Your task to perform on an android device: turn on airplane mode Image 0: 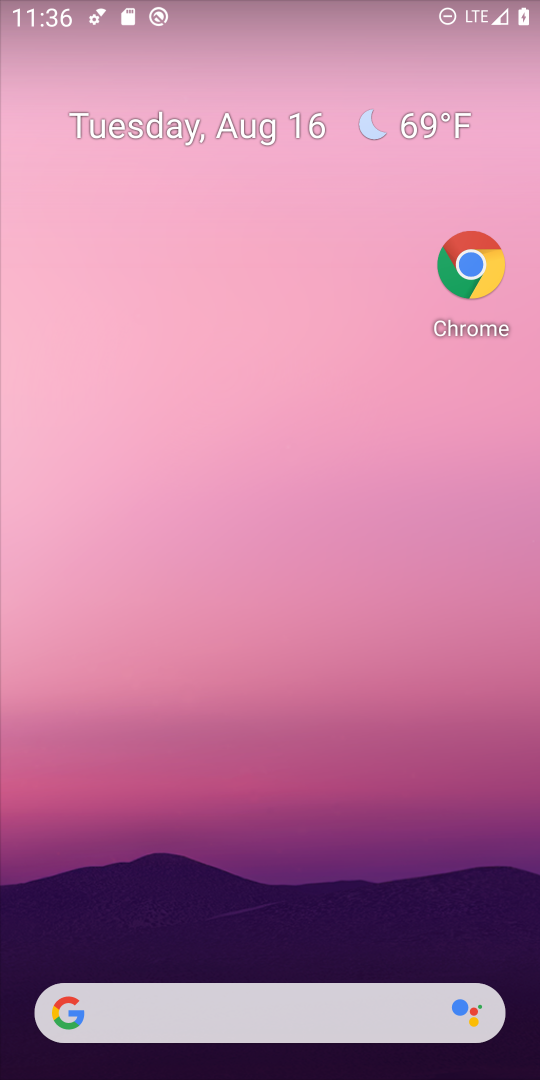
Step 0: drag from (234, 986) to (377, 109)
Your task to perform on an android device: turn on airplane mode Image 1: 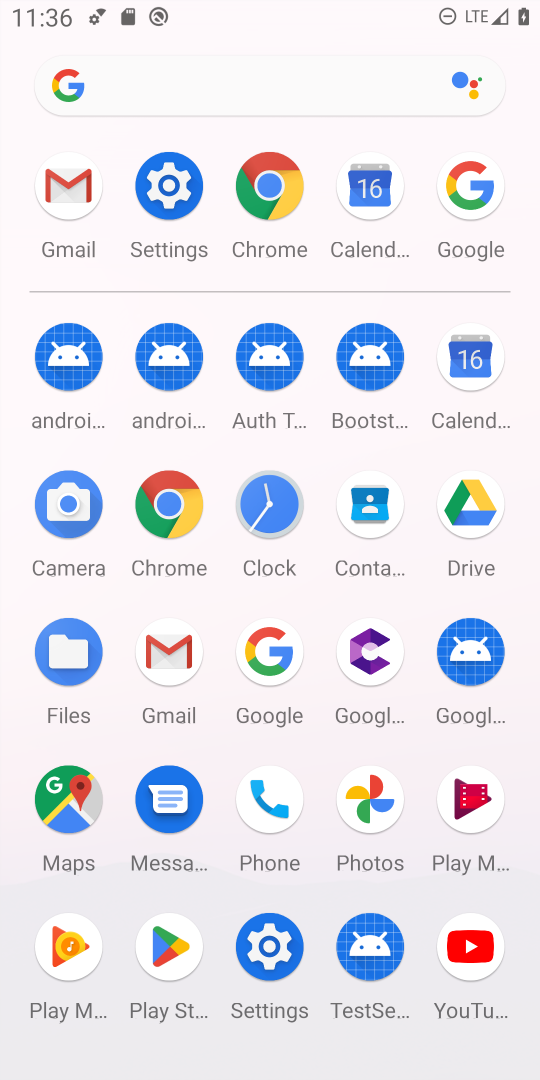
Step 1: click (188, 207)
Your task to perform on an android device: turn on airplane mode Image 2: 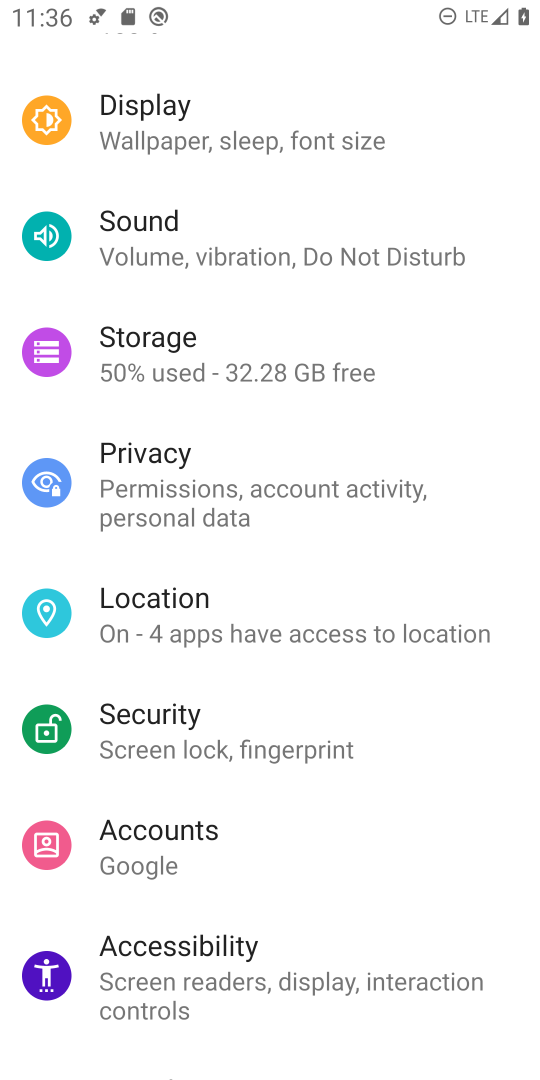
Step 2: drag from (248, 376) to (281, 1043)
Your task to perform on an android device: turn on airplane mode Image 3: 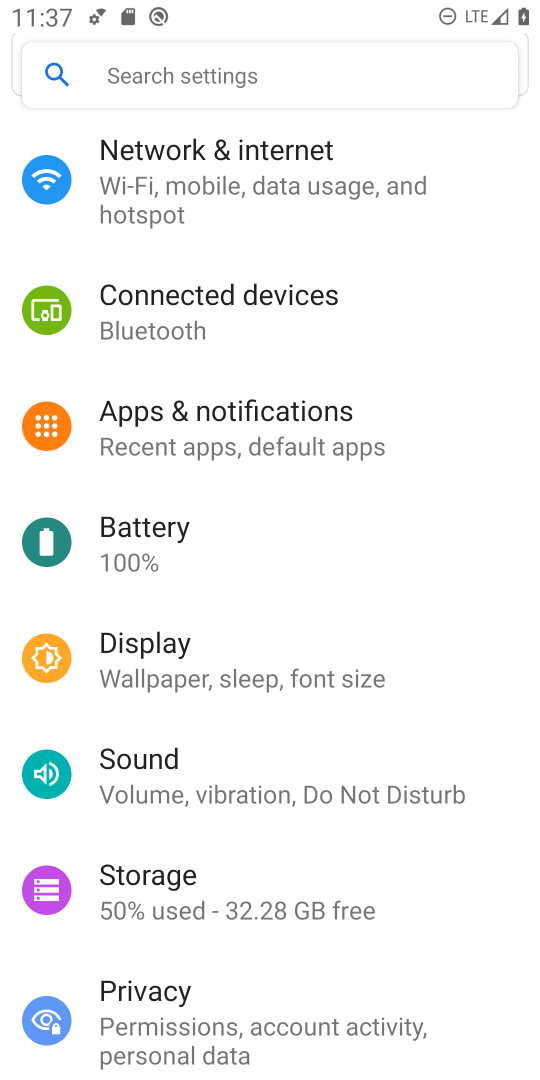
Step 3: drag from (313, 435) to (307, 979)
Your task to perform on an android device: turn on airplane mode Image 4: 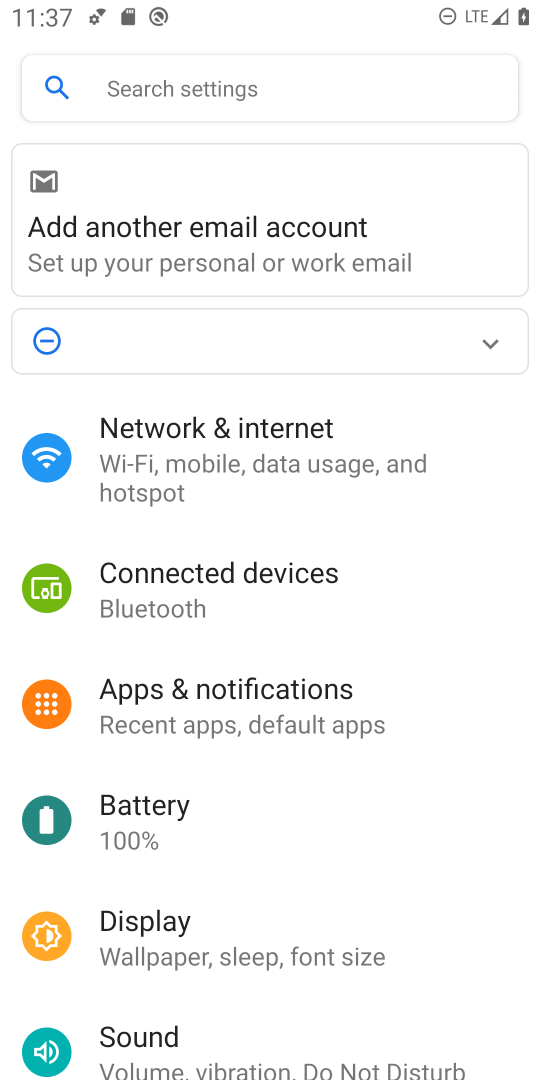
Step 4: click (290, 474)
Your task to perform on an android device: turn on airplane mode Image 5: 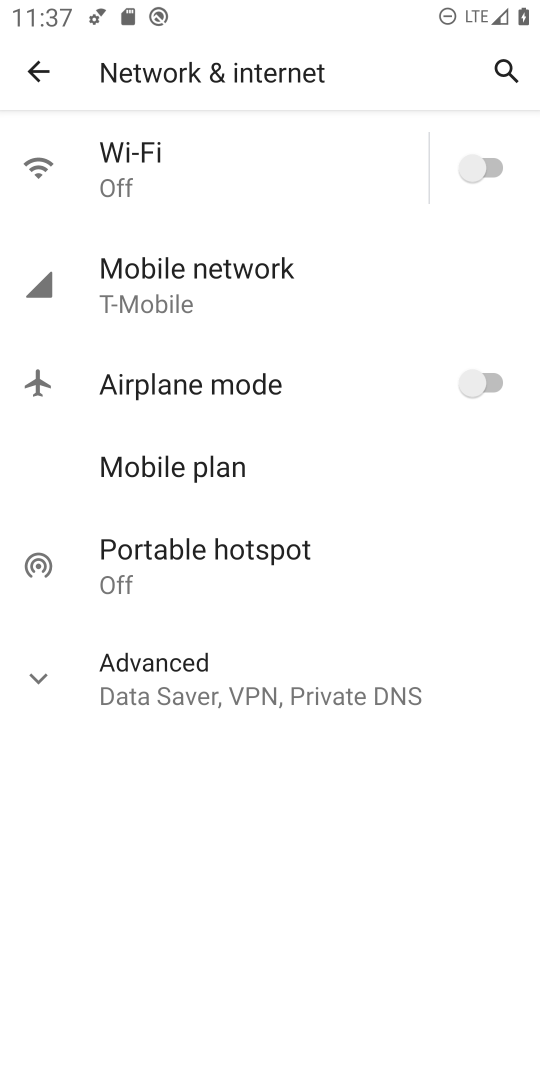
Step 5: click (448, 378)
Your task to perform on an android device: turn on airplane mode Image 6: 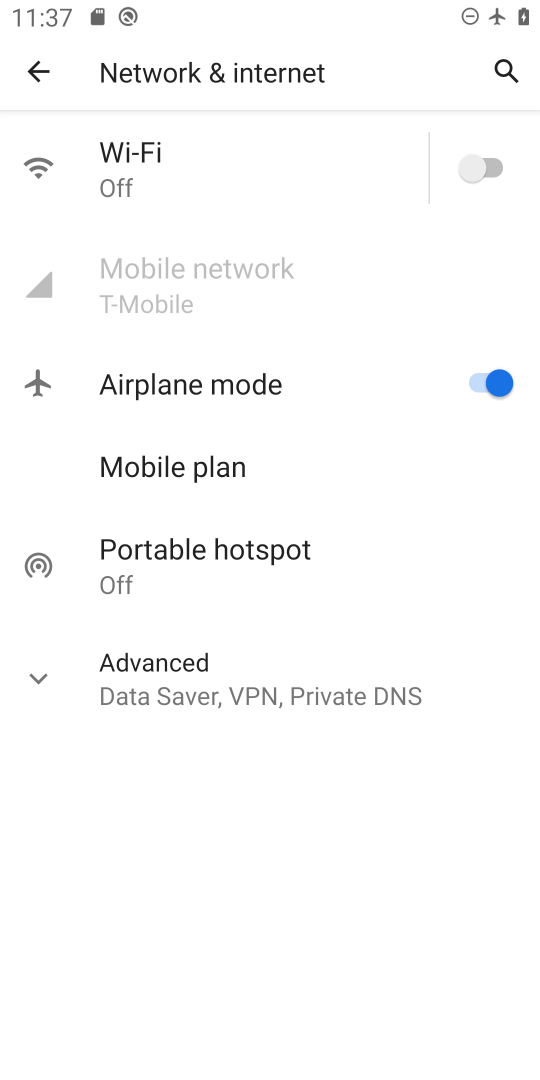
Step 6: task complete